Your task to perform on an android device: turn off priority inbox in the gmail app Image 0: 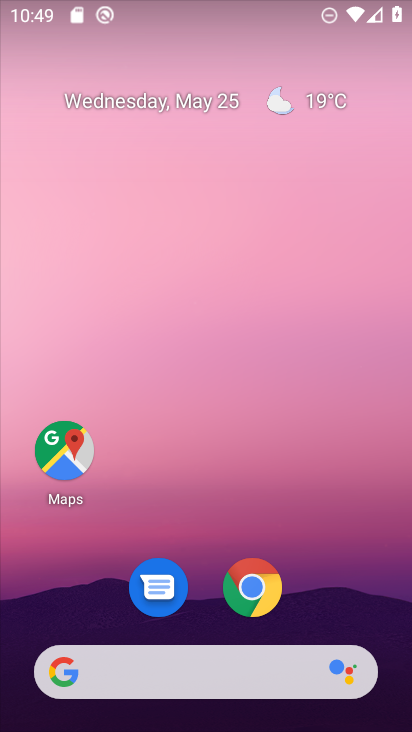
Step 0: drag from (383, 620) to (336, 85)
Your task to perform on an android device: turn off priority inbox in the gmail app Image 1: 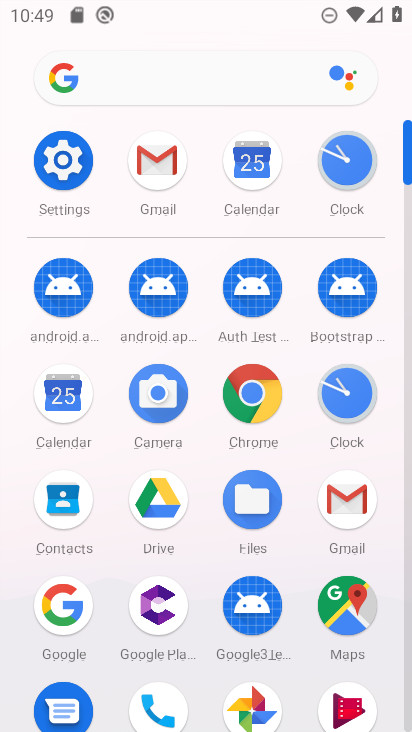
Step 1: click (407, 688)
Your task to perform on an android device: turn off priority inbox in the gmail app Image 2: 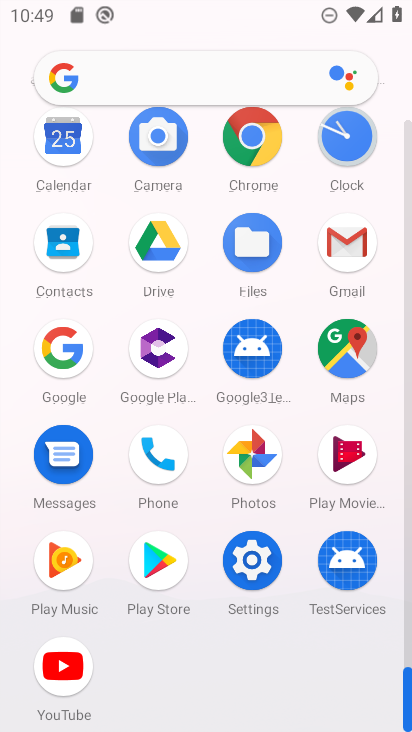
Step 2: click (343, 241)
Your task to perform on an android device: turn off priority inbox in the gmail app Image 3: 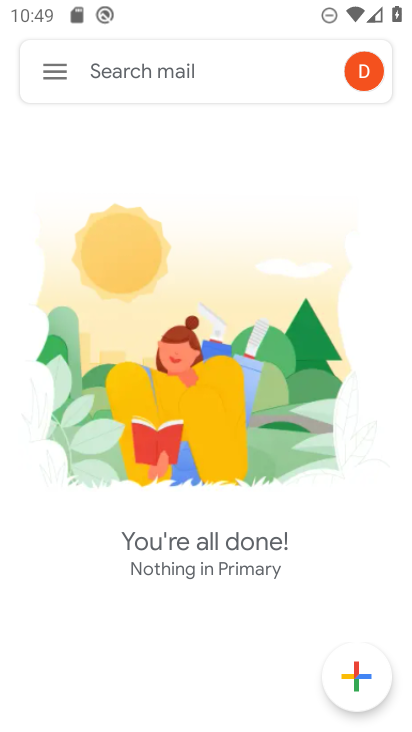
Step 3: click (61, 72)
Your task to perform on an android device: turn off priority inbox in the gmail app Image 4: 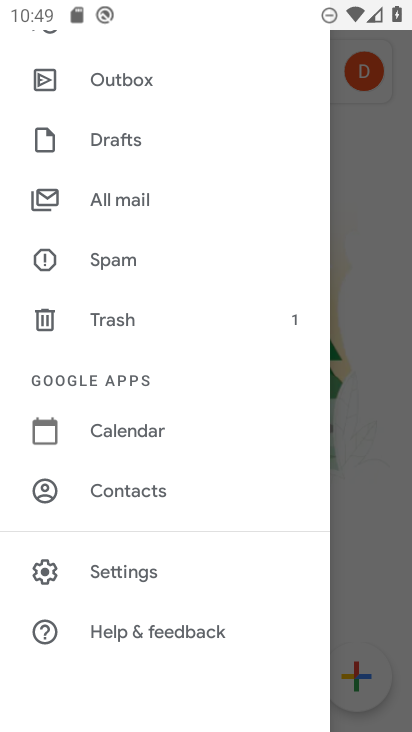
Step 4: click (123, 579)
Your task to perform on an android device: turn off priority inbox in the gmail app Image 5: 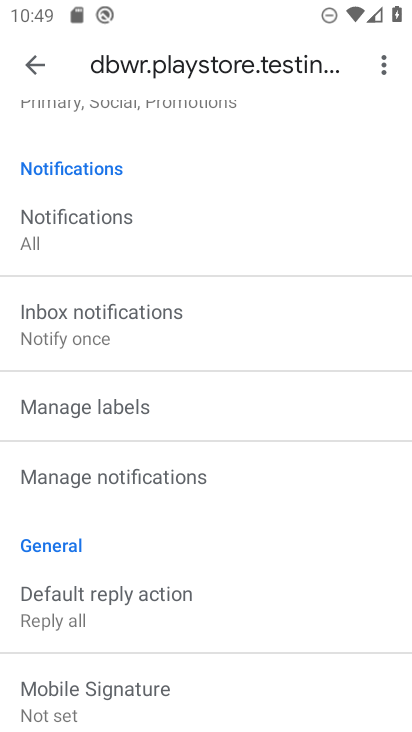
Step 5: drag from (273, 165) to (276, 543)
Your task to perform on an android device: turn off priority inbox in the gmail app Image 6: 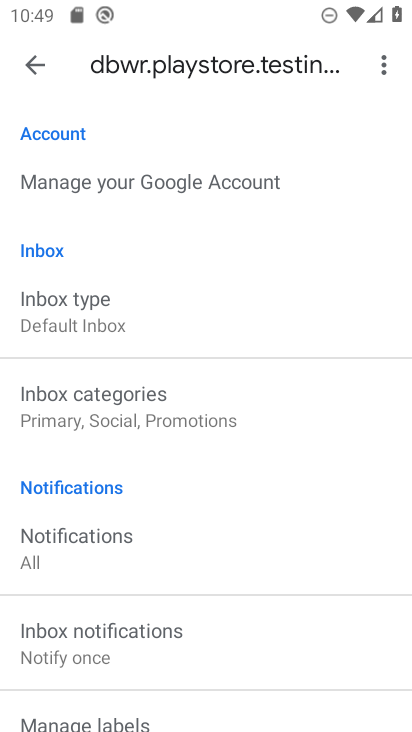
Step 6: drag from (261, 278) to (256, 361)
Your task to perform on an android device: turn off priority inbox in the gmail app Image 7: 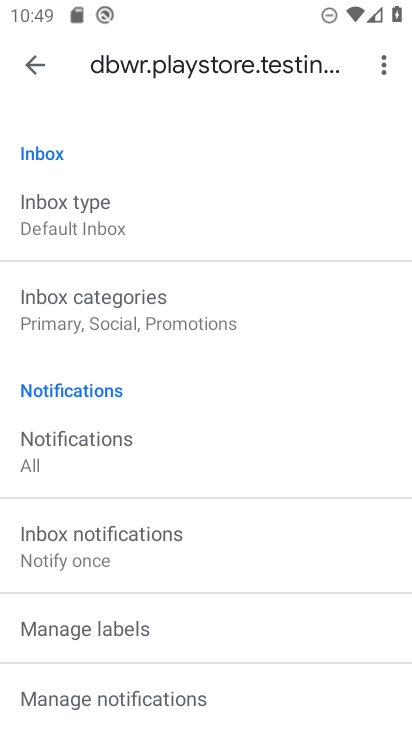
Step 7: click (65, 221)
Your task to perform on an android device: turn off priority inbox in the gmail app Image 8: 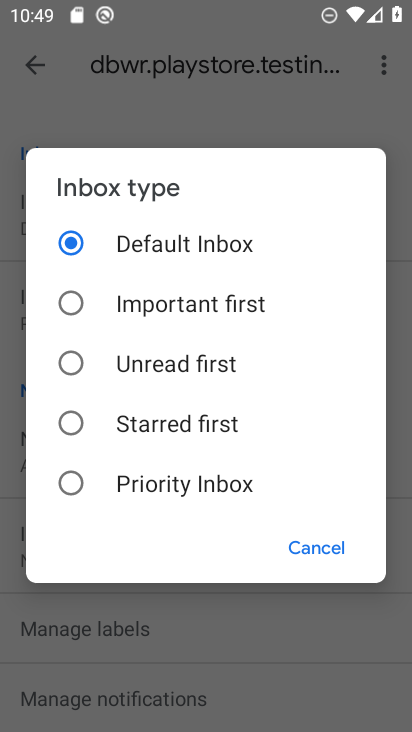
Step 8: task complete